Your task to perform on an android device: turn on javascript in the chrome app Image 0: 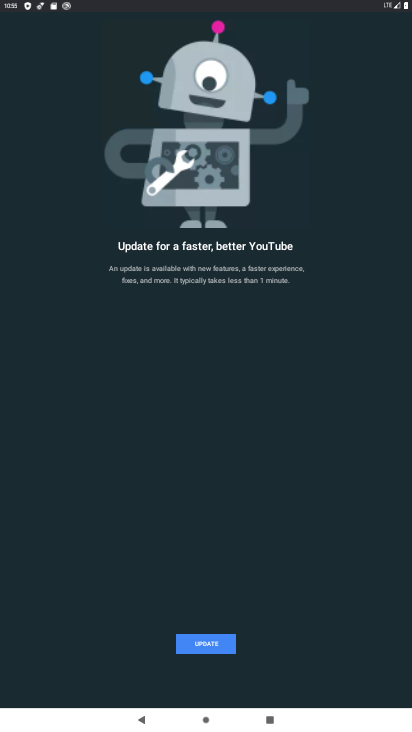
Step 0: press home button
Your task to perform on an android device: turn on javascript in the chrome app Image 1: 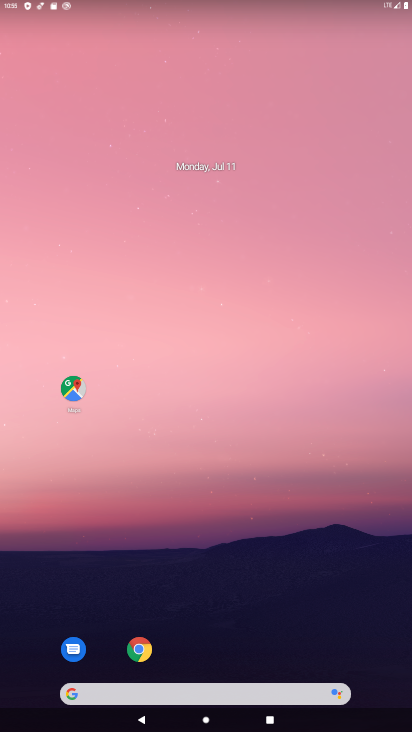
Step 1: drag from (306, 529) to (255, 157)
Your task to perform on an android device: turn on javascript in the chrome app Image 2: 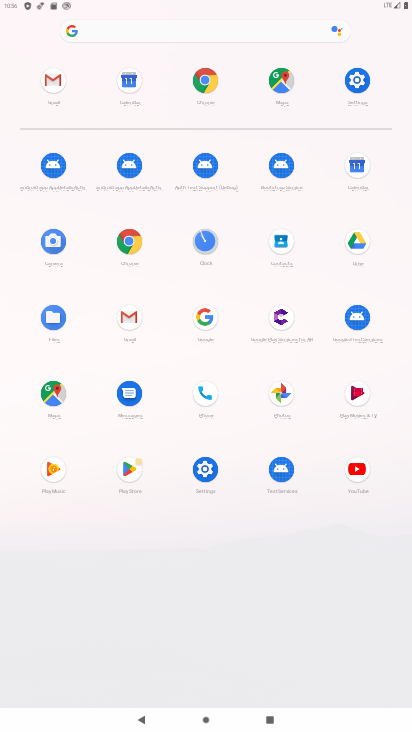
Step 2: click (127, 237)
Your task to perform on an android device: turn on javascript in the chrome app Image 3: 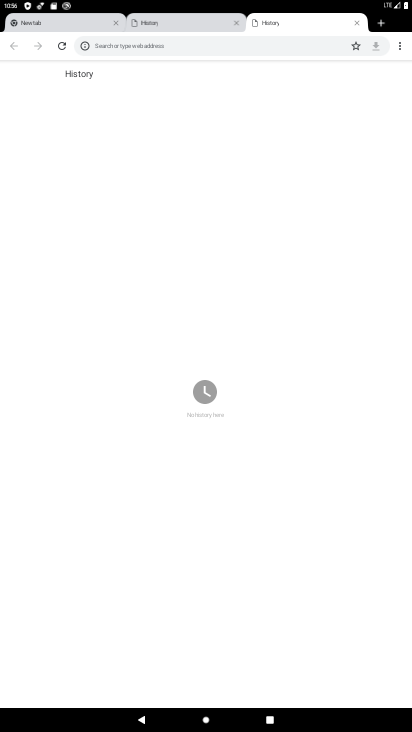
Step 3: drag from (403, 43) to (301, 211)
Your task to perform on an android device: turn on javascript in the chrome app Image 4: 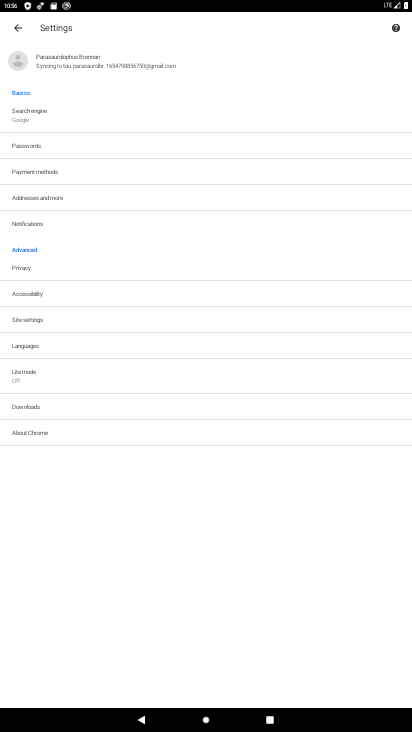
Step 4: click (32, 319)
Your task to perform on an android device: turn on javascript in the chrome app Image 5: 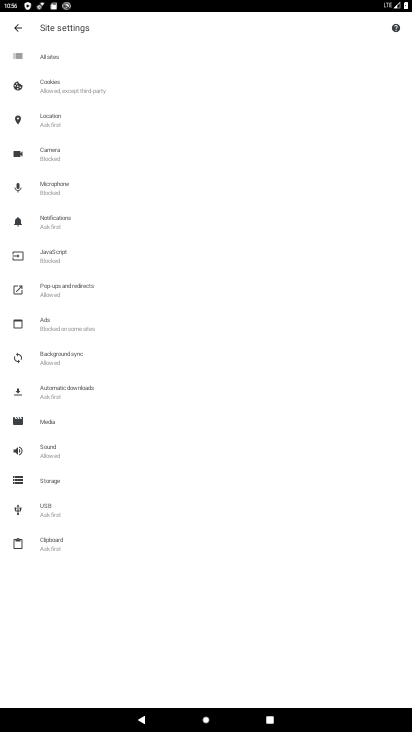
Step 5: click (57, 258)
Your task to perform on an android device: turn on javascript in the chrome app Image 6: 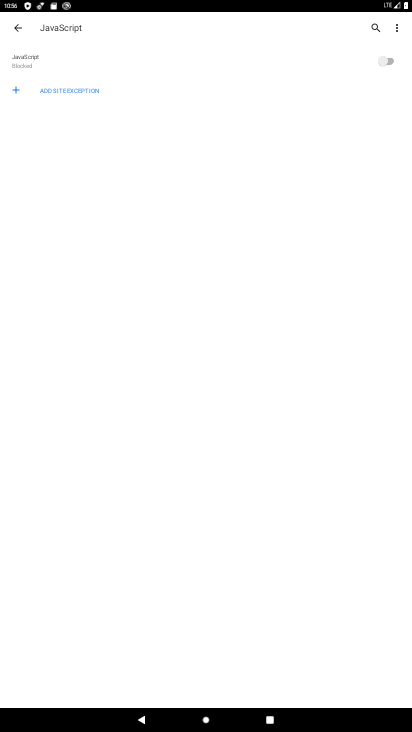
Step 6: click (389, 62)
Your task to perform on an android device: turn on javascript in the chrome app Image 7: 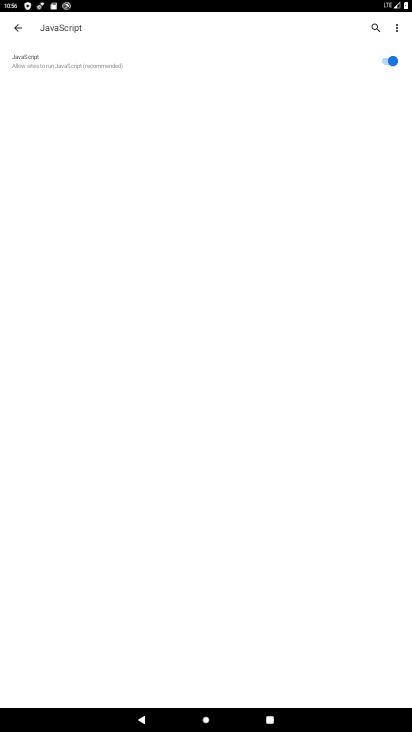
Step 7: task complete